Your task to perform on an android device: move an email to a new category in the gmail app Image 0: 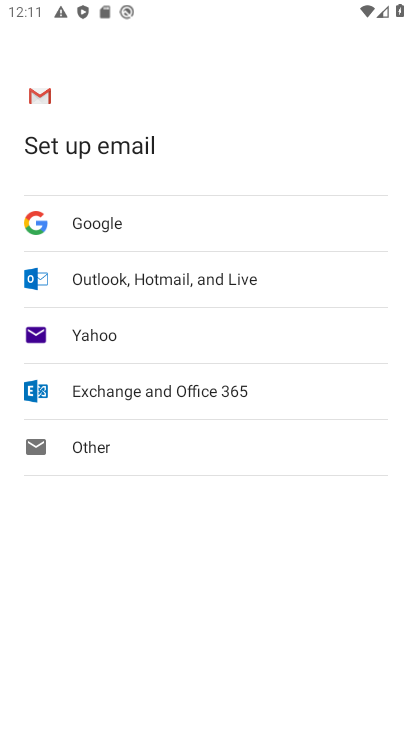
Step 0: press home button
Your task to perform on an android device: move an email to a new category in the gmail app Image 1: 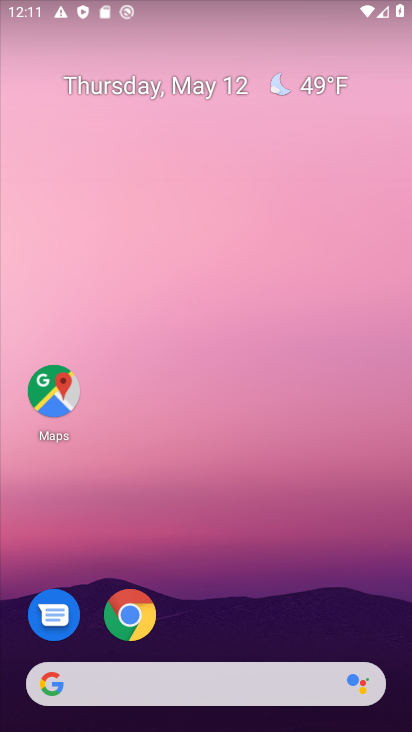
Step 1: drag from (259, 658) to (321, 375)
Your task to perform on an android device: move an email to a new category in the gmail app Image 2: 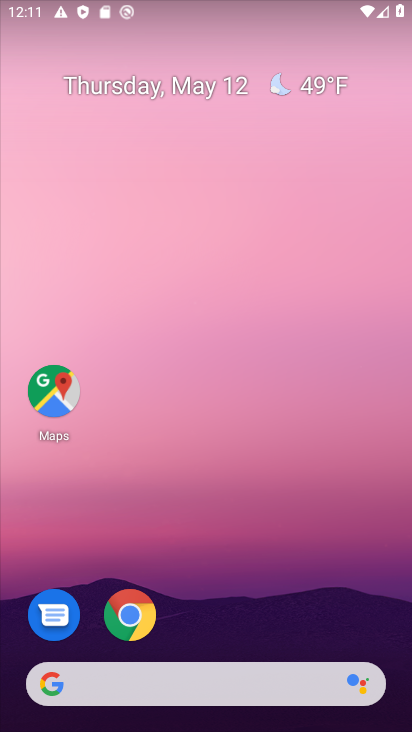
Step 2: drag from (245, 729) to (318, 397)
Your task to perform on an android device: move an email to a new category in the gmail app Image 3: 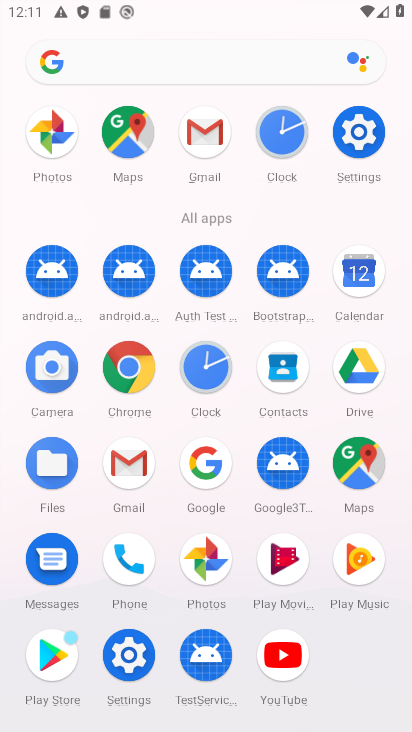
Step 3: click (199, 166)
Your task to perform on an android device: move an email to a new category in the gmail app Image 4: 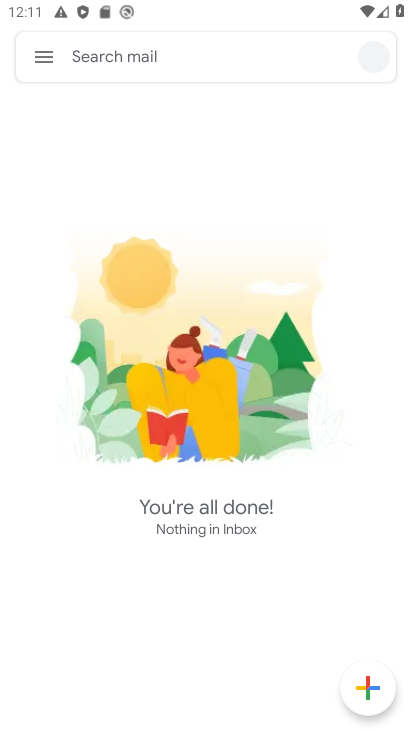
Step 4: click (37, 70)
Your task to perform on an android device: move an email to a new category in the gmail app Image 5: 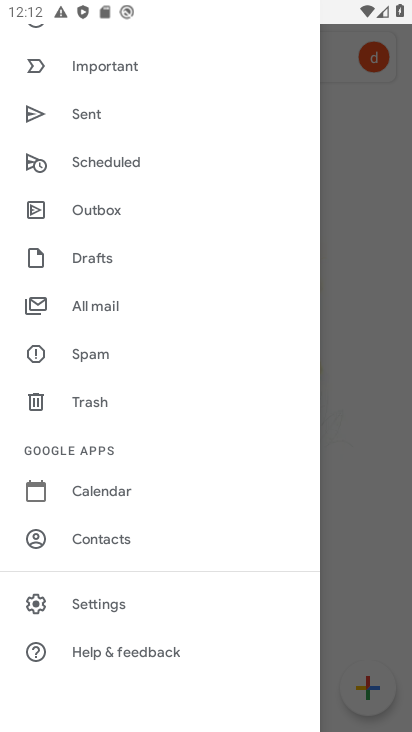
Step 5: click (102, 603)
Your task to perform on an android device: move an email to a new category in the gmail app Image 6: 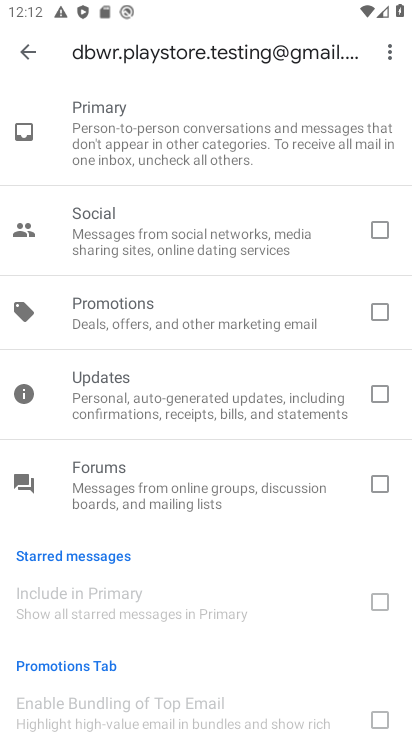
Step 6: click (377, 234)
Your task to perform on an android device: move an email to a new category in the gmail app Image 7: 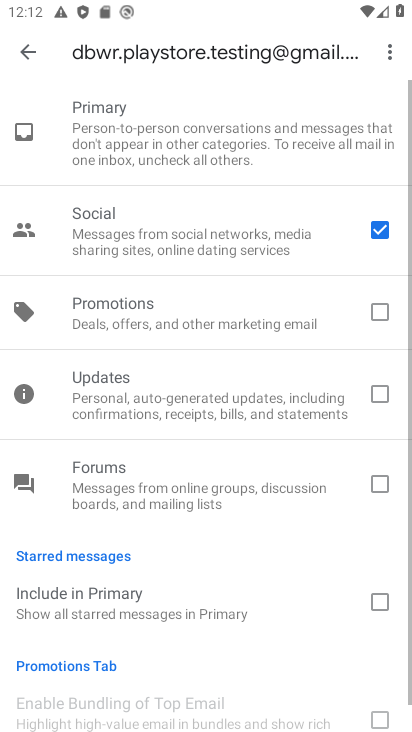
Step 7: click (376, 311)
Your task to perform on an android device: move an email to a new category in the gmail app Image 8: 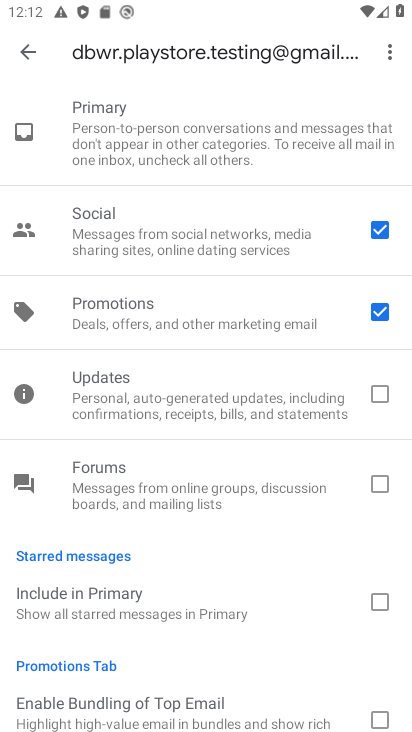
Step 8: task complete